Your task to perform on an android device: set the stopwatch Image 0: 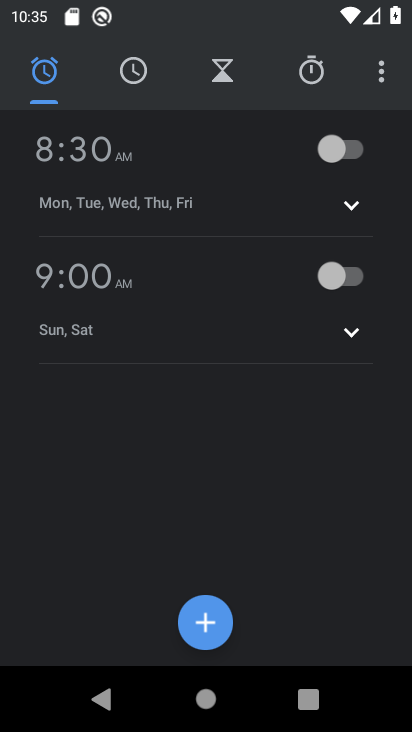
Step 0: press home button
Your task to perform on an android device: set the stopwatch Image 1: 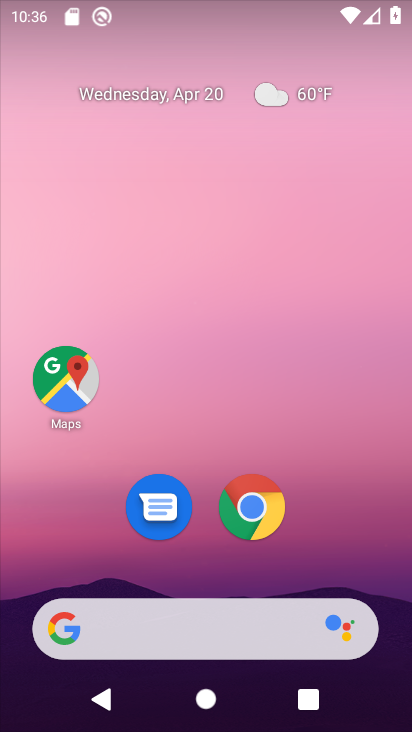
Step 1: drag from (165, 582) to (207, 87)
Your task to perform on an android device: set the stopwatch Image 2: 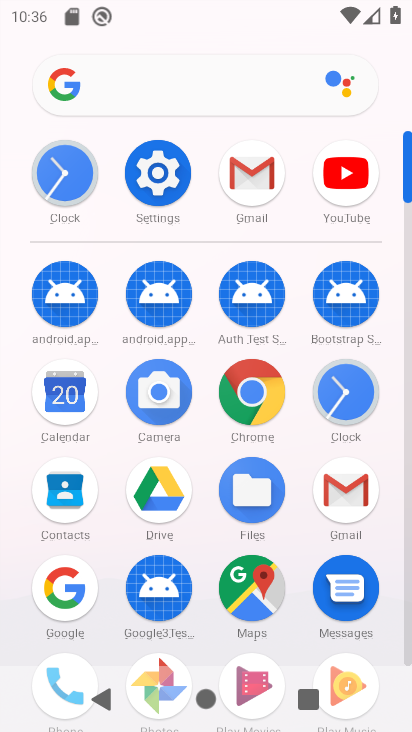
Step 2: click (348, 400)
Your task to perform on an android device: set the stopwatch Image 3: 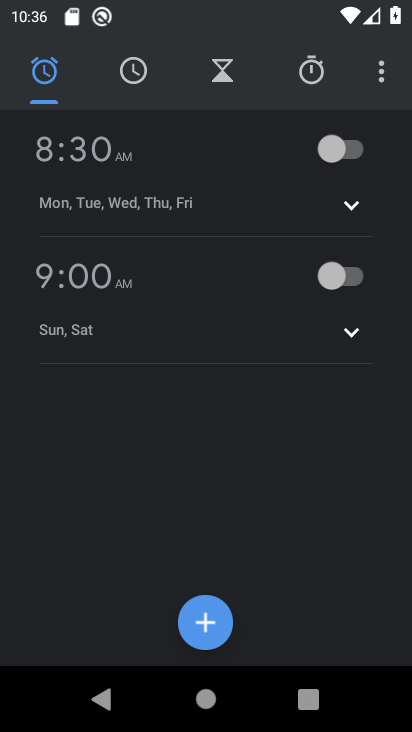
Step 3: click (311, 88)
Your task to perform on an android device: set the stopwatch Image 4: 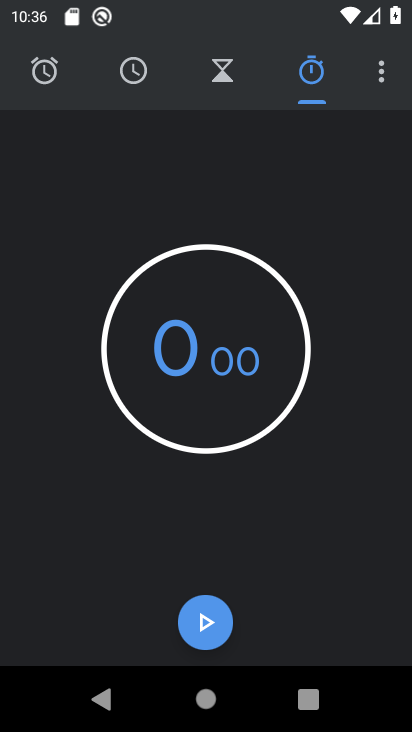
Step 4: click (195, 363)
Your task to perform on an android device: set the stopwatch Image 5: 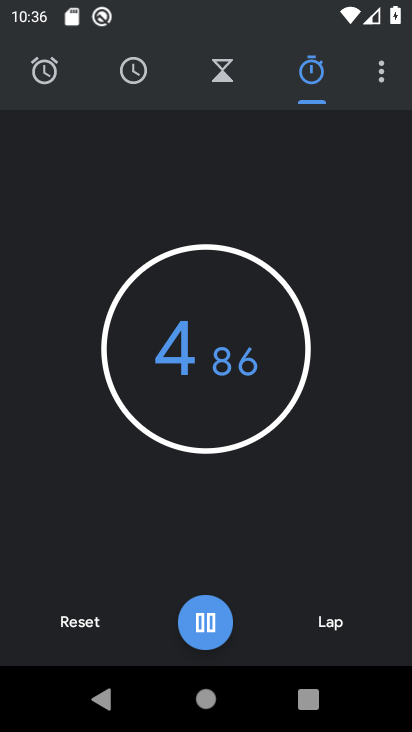
Step 5: task complete